Your task to perform on an android device: Open the calendar app, open the side menu, and click the "Day" option Image 0: 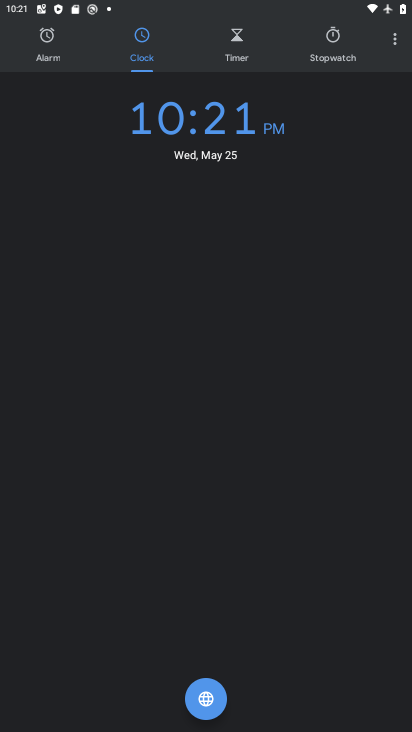
Step 0: press home button
Your task to perform on an android device: Open the calendar app, open the side menu, and click the "Day" option Image 1: 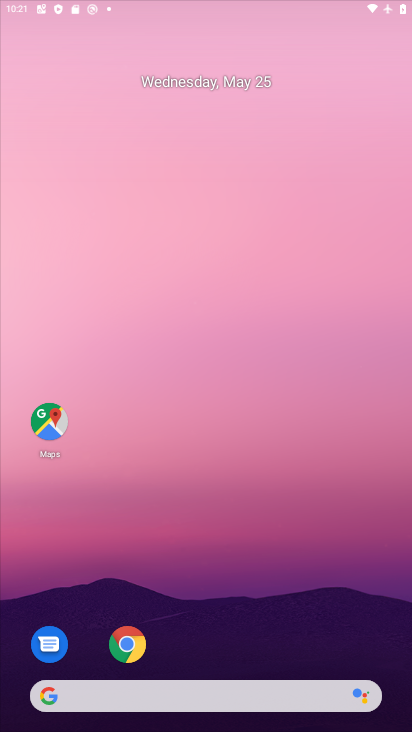
Step 1: drag from (245, 663) to (231, 120)
Your task to perform on an android device: Open the calendar app, open the side menu, and click the "Day" option Image 2: 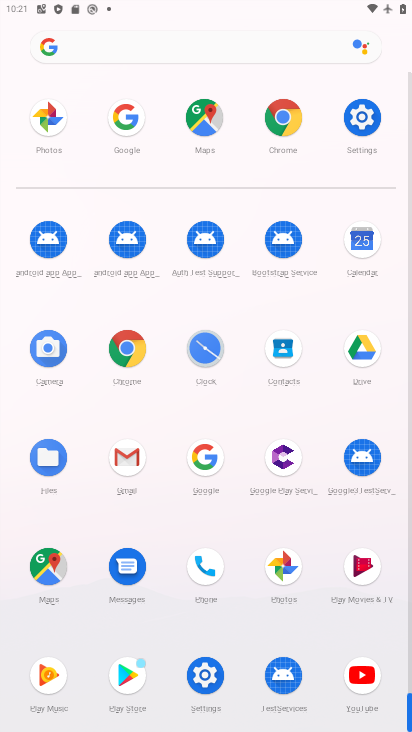
Step 2: click (363, 242)
Your task to perform on an android device: Open the calendar app, open the side menu, and click the "Day" option Image 3: 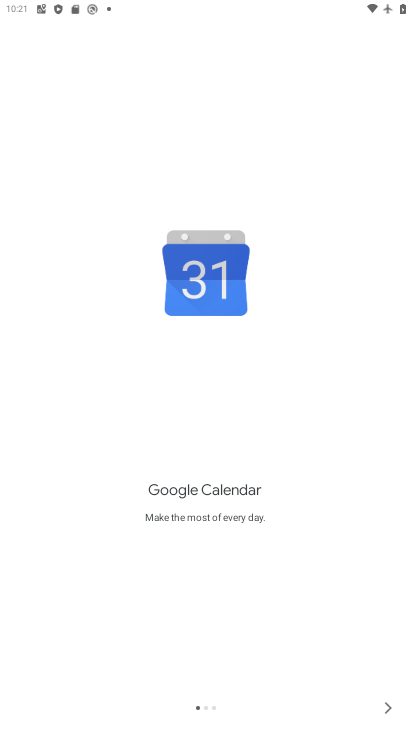
Step 3: click (398, 697)
Your task to perform on an android device: Open the calendar app, open the side menu, and click the "Day" option Image 4: 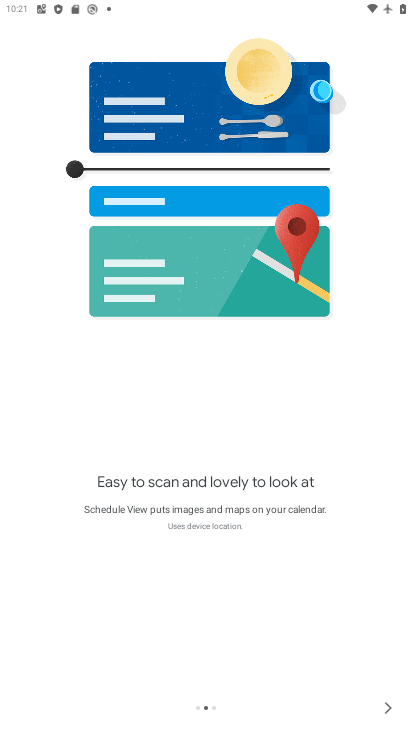
Step 4: click (395, 697)
Your task to perform on an android device: Open the calendar app, open the side menu, and click the "Day" option Image 5: 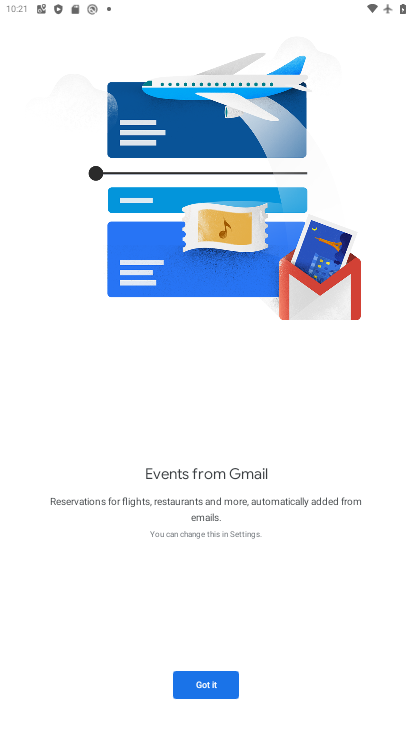
Step 5: click (204, 678)
Your task to perform on an android device: Open the calendar app, open the side menu, and click the "Day" option Image 6: 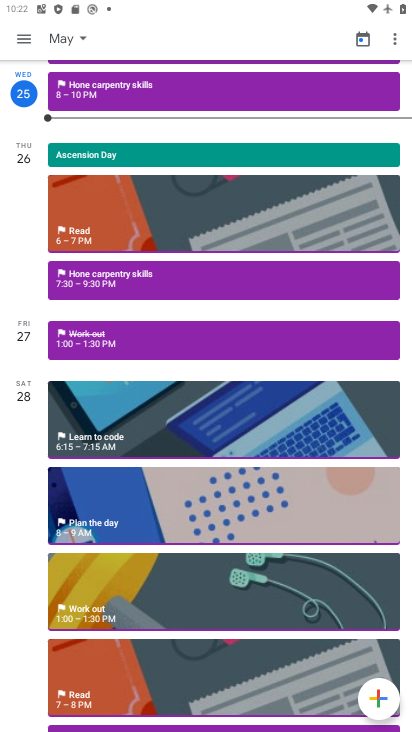
Step 6: click (22, 40)
Your task to perform on an android device: Open the calendar app, open the side menu, and click the "Day" option Image 7: 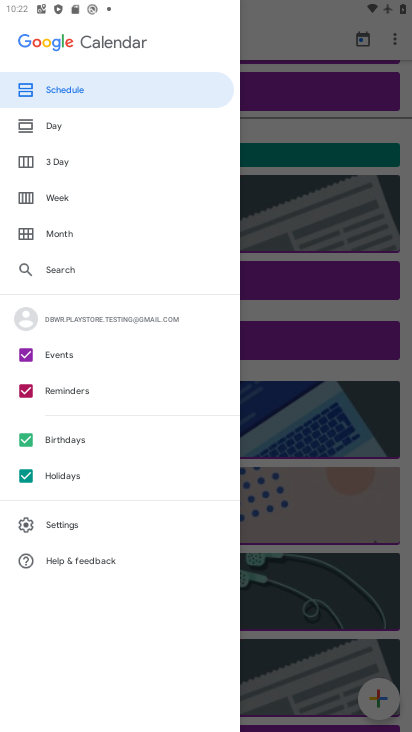
Step 7: click (97, 127)
Your task to perform on an android device: Open the calendar app, open the side menu, and click the "Day" option Image 8: 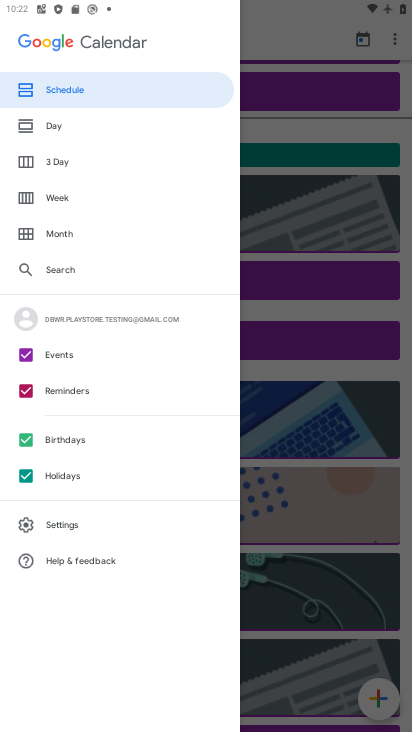
Step 8: click (54, 131)
Your task to perform on an android device: Open the calendar app, open the side menu, and click the "Day" option Image 9: 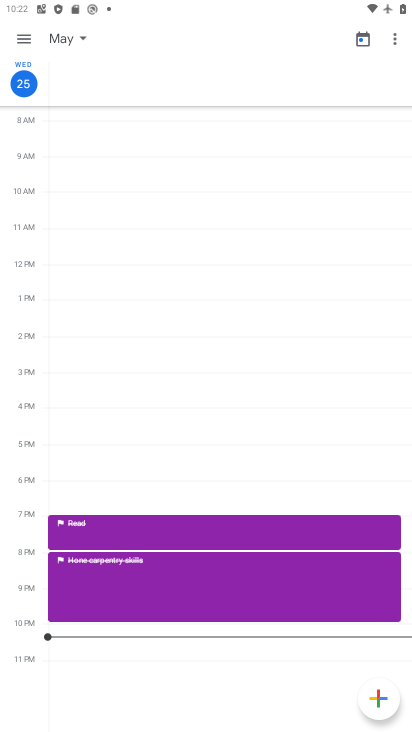
Step 9: task complete